Your task to perform on an android device: set the stopwatch Image 0: 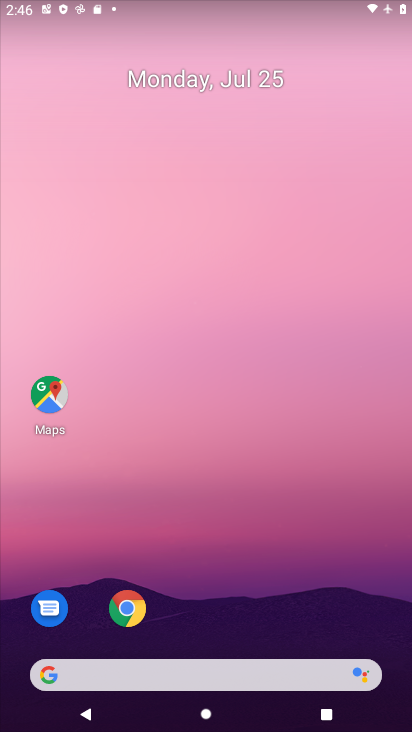
Step 0: drag from (228, 428) to (244, 195)
Your task to perform on an android device: set the stopwatch Image 1: 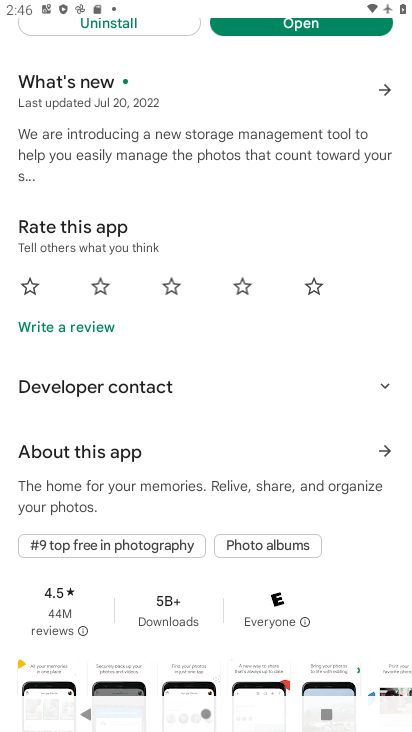
Step 1: press back button
Your task to perform on an android device: set the stopwatch Image 2: 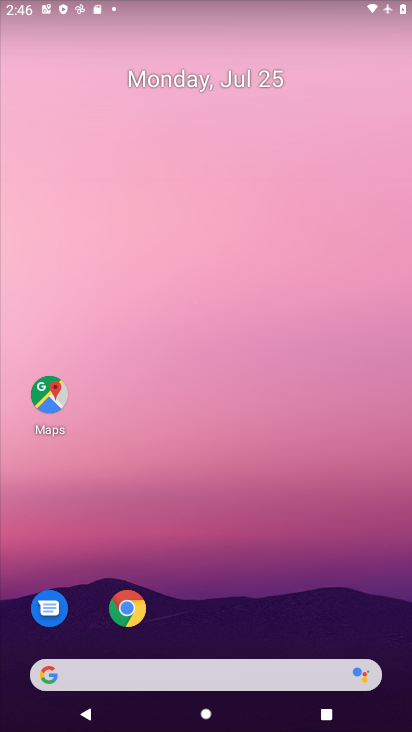
Step 2: drag from (173, 676) to (227, 208)
Your task to perform on an android device: set the stopwatch Image 3: 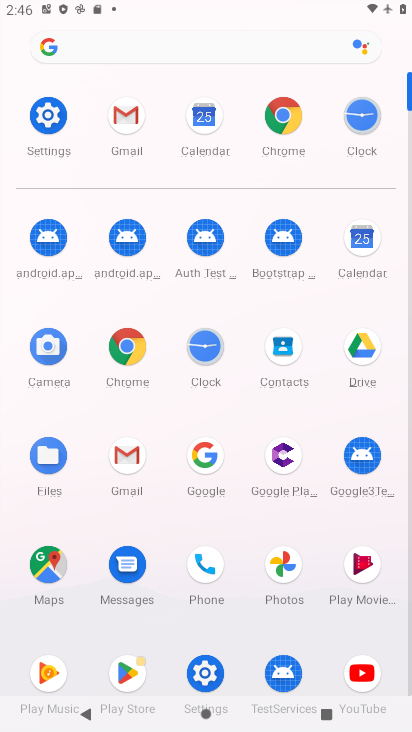
Step 3: click (197, 365)
Your task to perform on an android device: set the stopwatch Image 4: 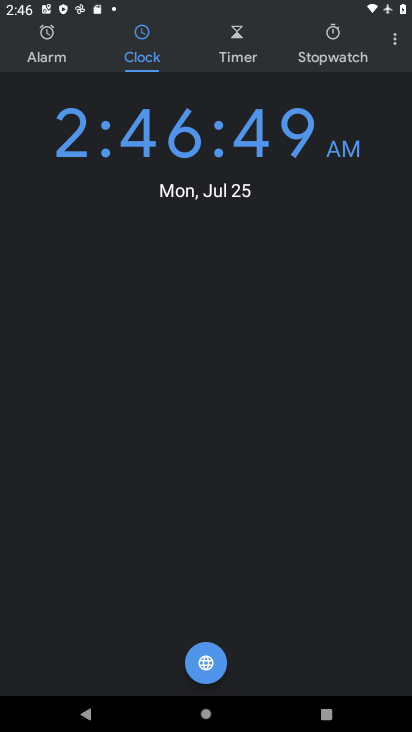
Step 4: click (328, 53)
Your task to perform on an android device: set the stopwatch Image 5: 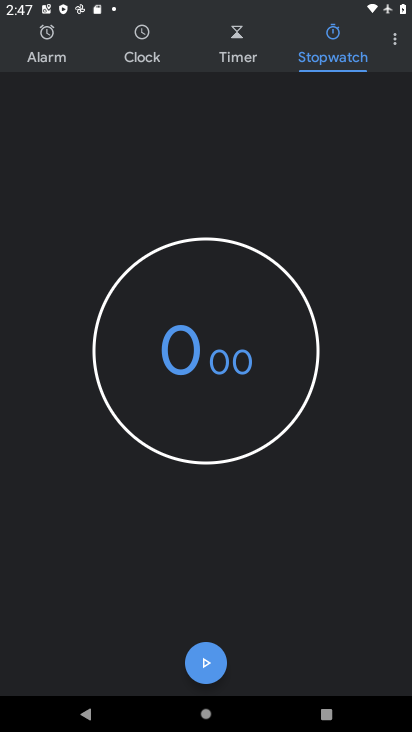
Step 5: click (191, 657)
Your task to perform on an android device: set the stopwatch Image 6: 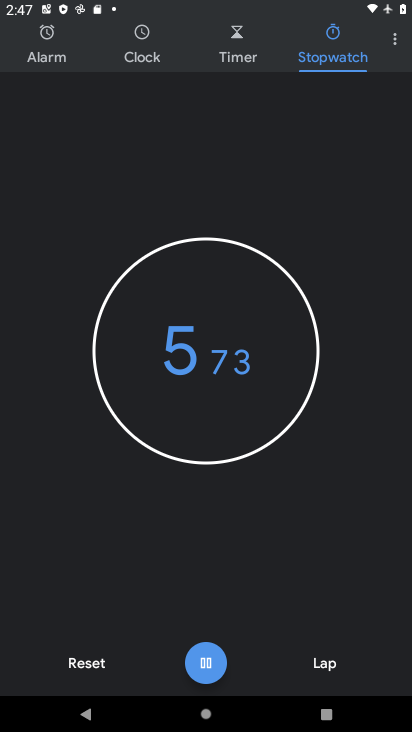
Step 6: task complete